Your task to perform on an android device: Open display settings Image 0: 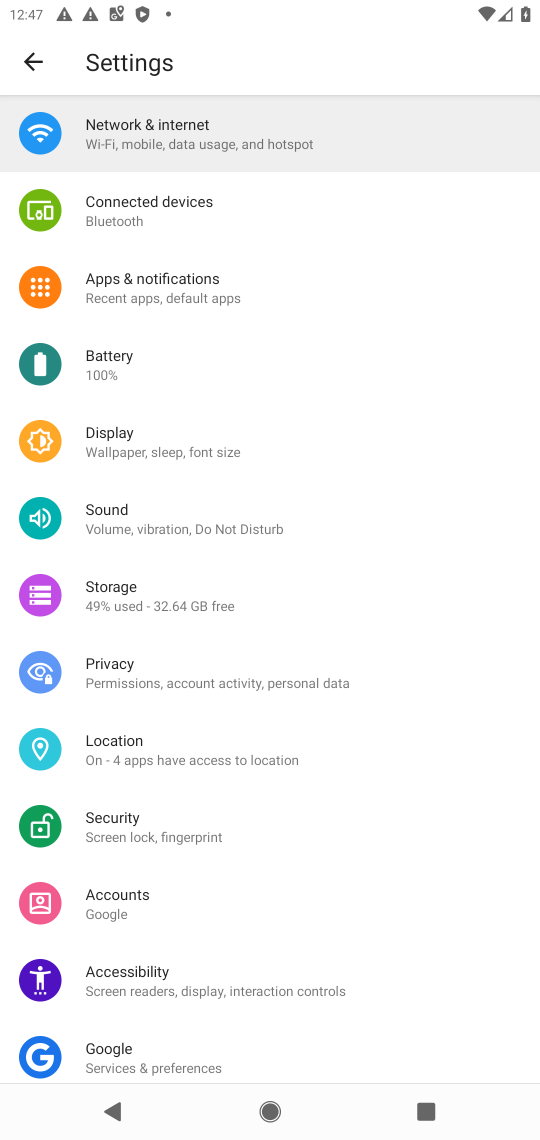
Step 0: click (156, 455)
Your task to perform on an android device: Open display settings Image 1: 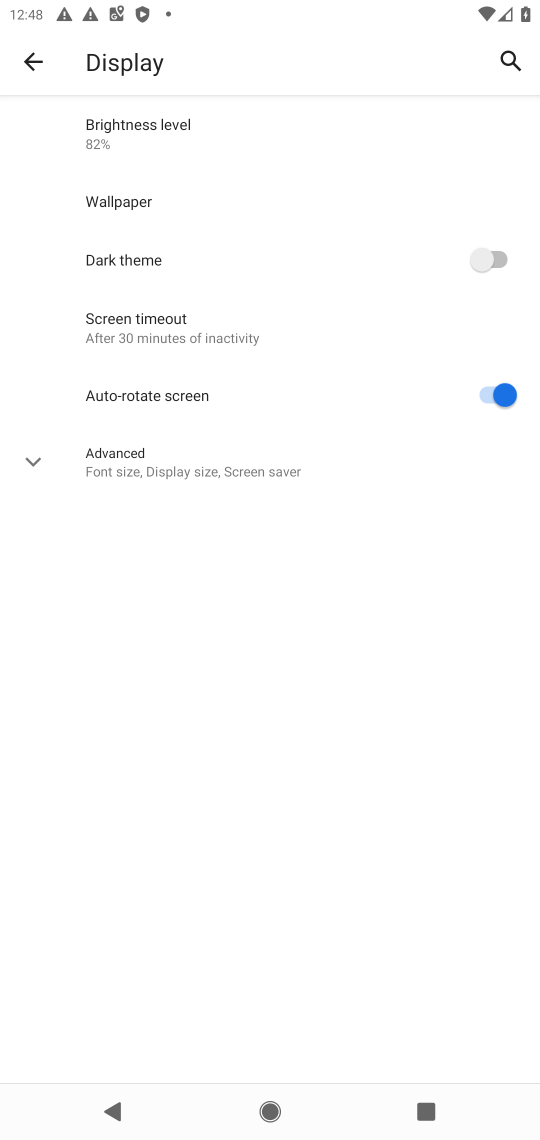
Step 1: task complete